Your task to perform on an android device: open app "McDonald's" (install if not already installed) Image 0: 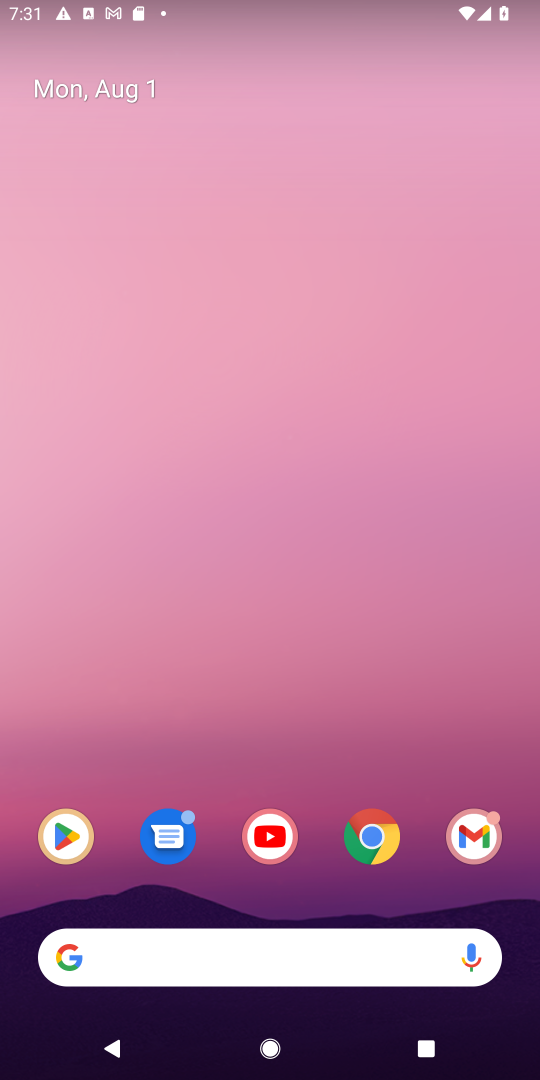
Step 0: click (60, 839)
Your task to perform on an android device: open app "McDonald's" (install if not already installed) Image 1: 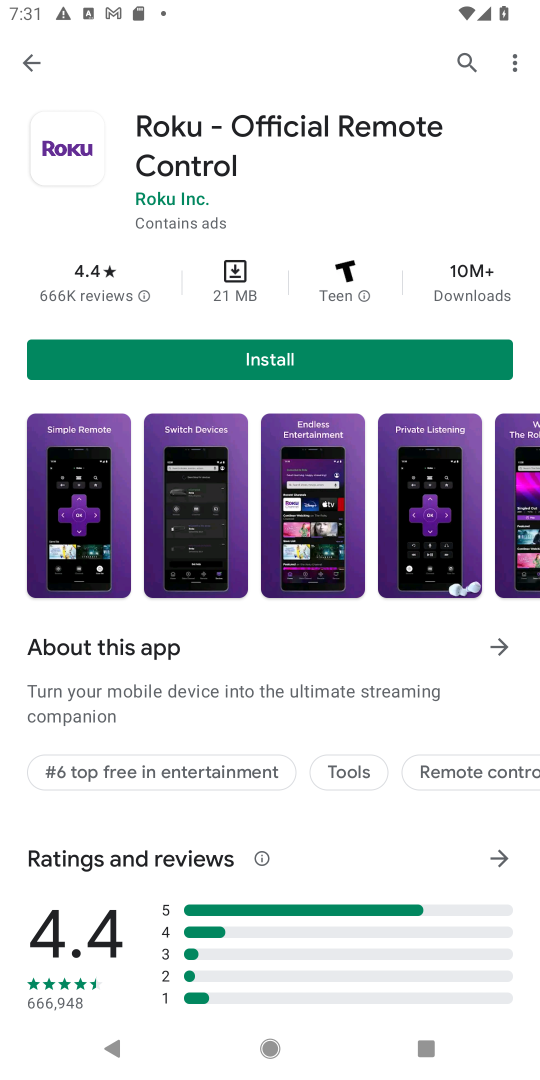
Step 1: click (458, 57)
Your task to perform on an android device: open app "McDonald's" (install if not already installed) Image 2: 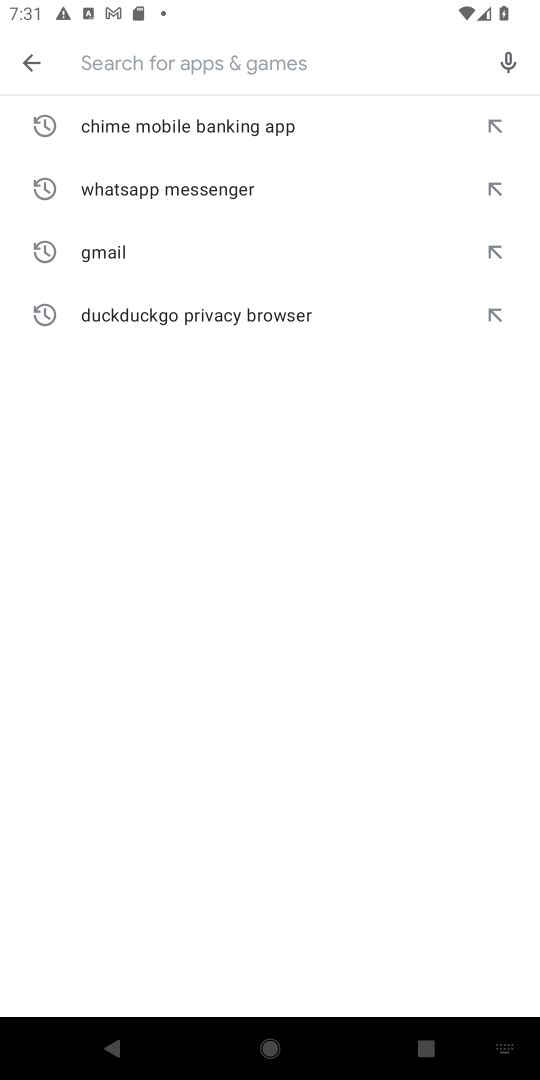
Step 2: type "McDonald's"
Your task to perform on an android device: open app "McDonald's" (install if not already installed) Image 3: 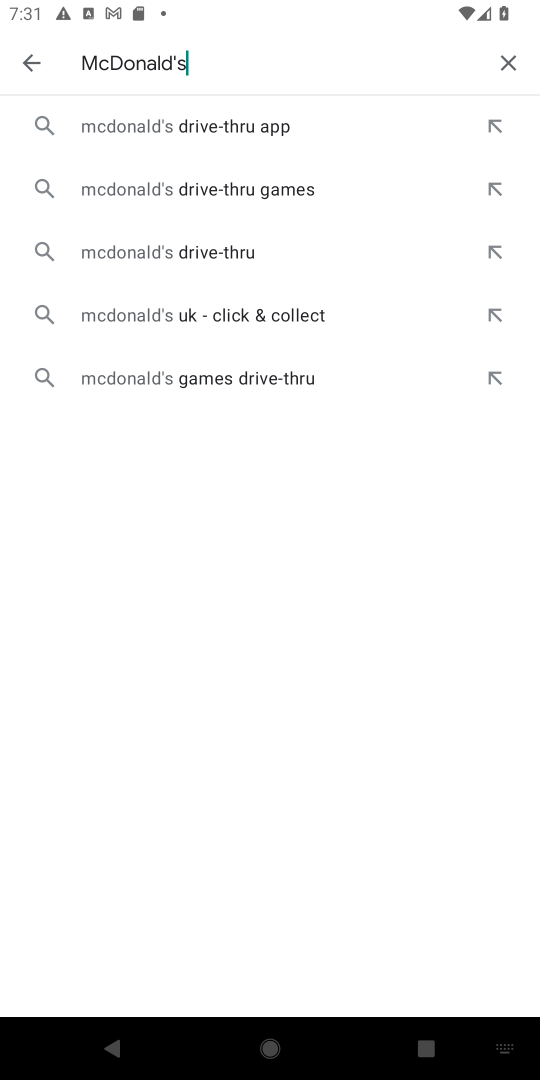
Step 3: click (274, 131)
Your task to perform on an android device: open app "McDonald's" (install if not already installed) Image 4: 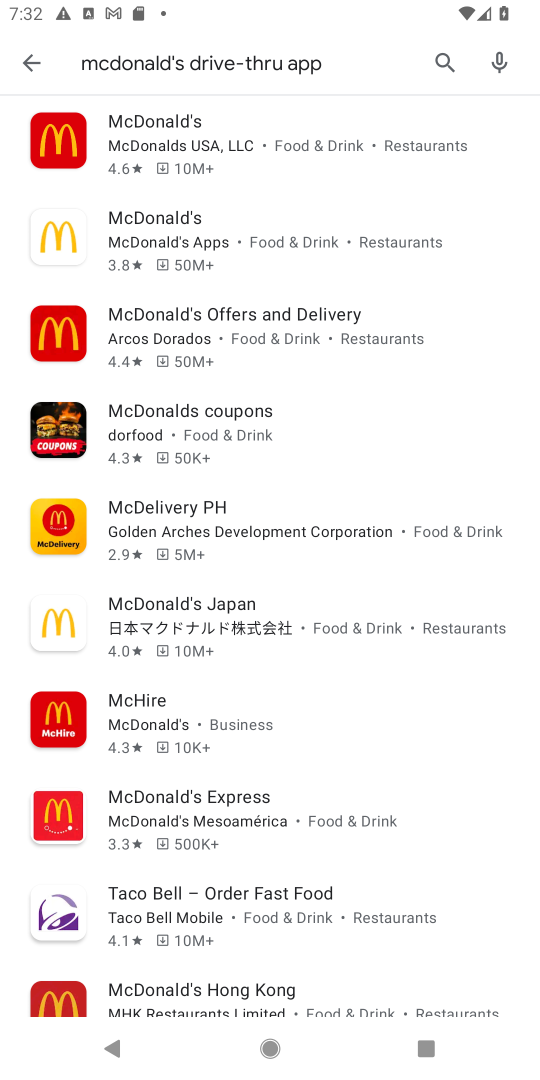
Step 4: click (214, 148)
Your task to perform on an android device: open app "McDonald's" (install if not already installed) Image 5: 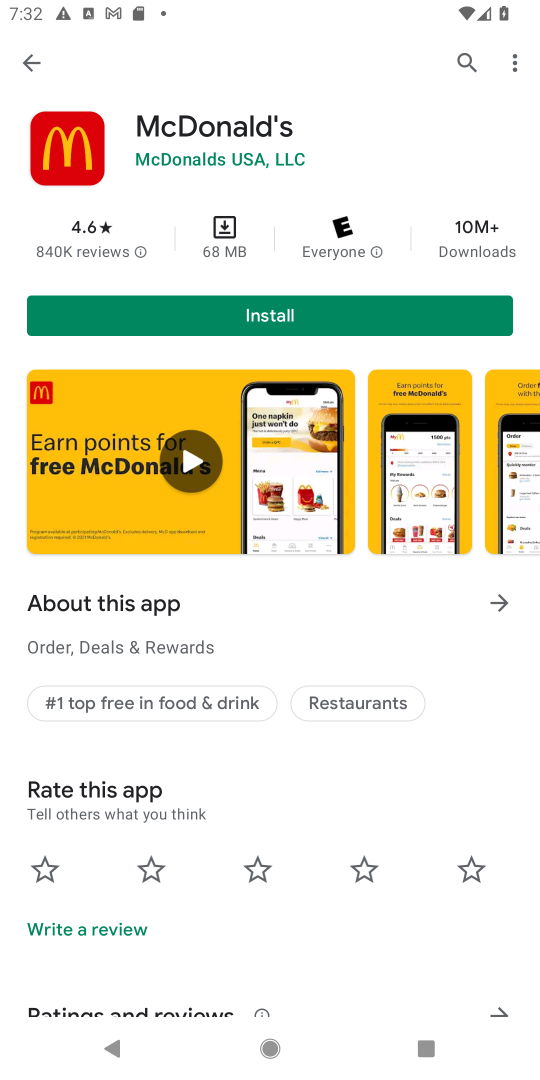
Step 5: click (271, 317)
Your task to perform on an android device: open app "McDonald's" (install if not already installed) Image 6: 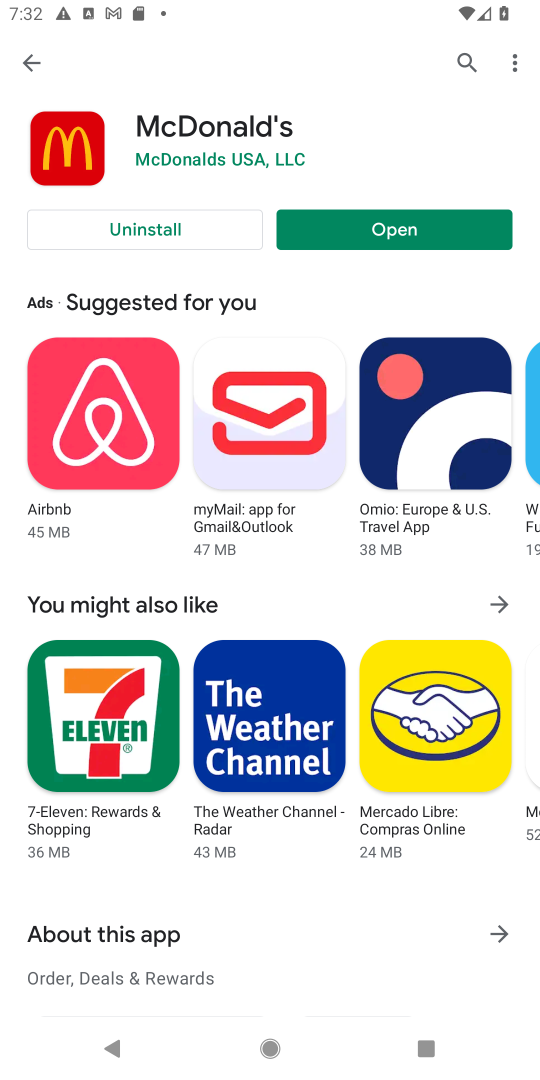
Step 6: click (370, 228)
Your task to perform on an android device: open app "McDonald's" (install if not already installed) Image 7: 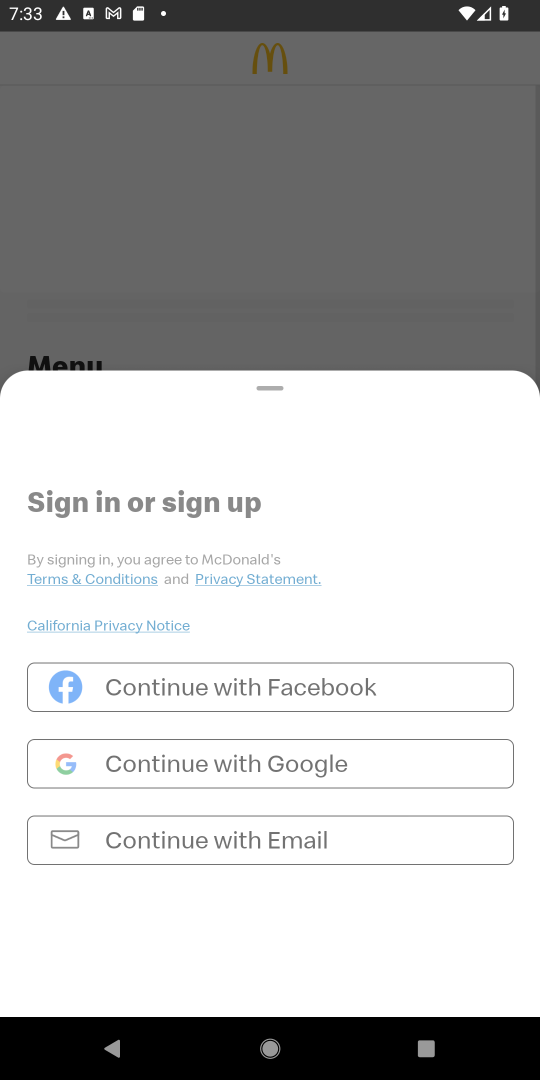
Step 7: task complete